Your task to perform on an android device: Go to Reddit.com Image 0: 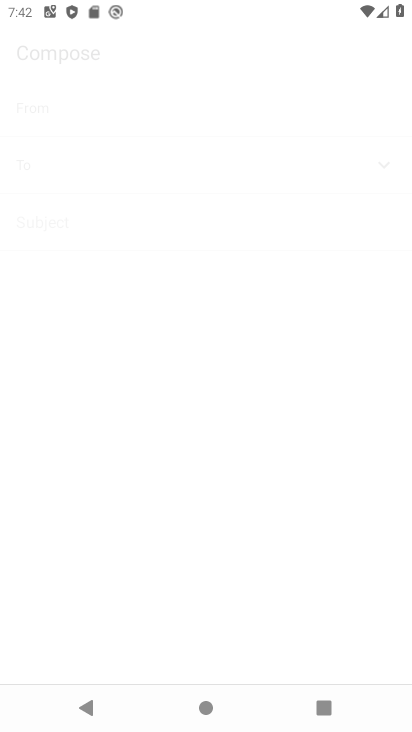
Step 0: drag from (303, 630) to (251, 160)
Your task to perform on an android device: Go to Reddit.com Image 1: 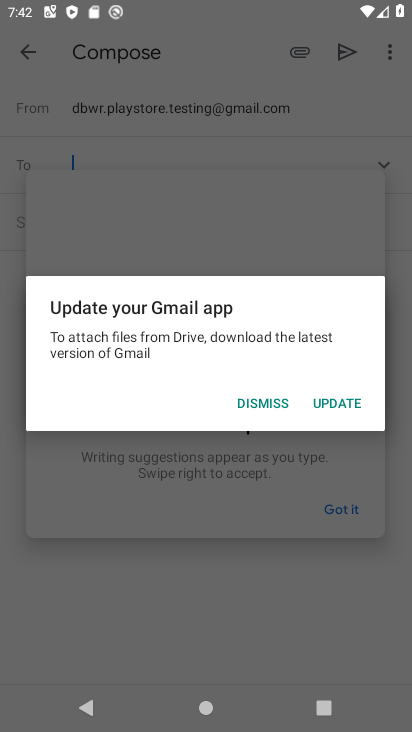
Step 1: press home button
Your task to perform on an android device: Go to Reddit.com Image 2: 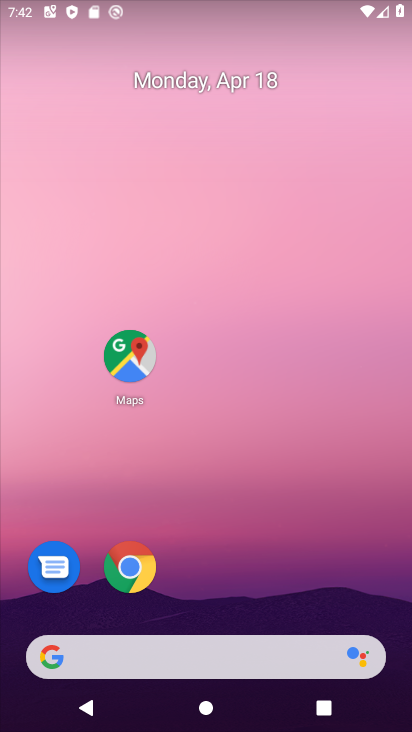
Step 2: drag from (298, 665) to (237, 182)
Your task to perform on an android device: Go to Reddit.com Image 3: 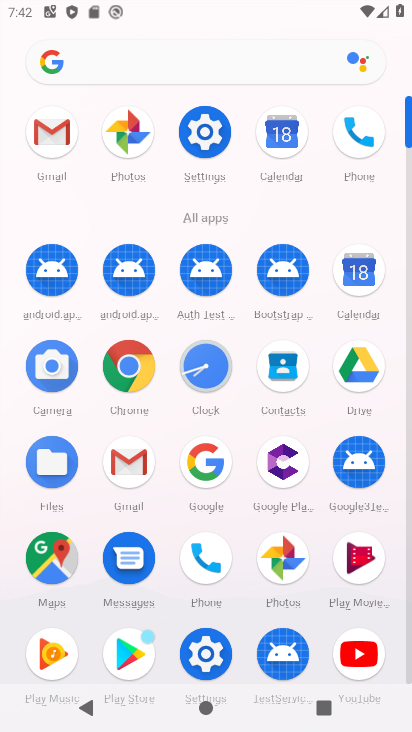
Step 3: click (143, 653)
Your task to perform on an android device: Go to Reddit.com Image 4: 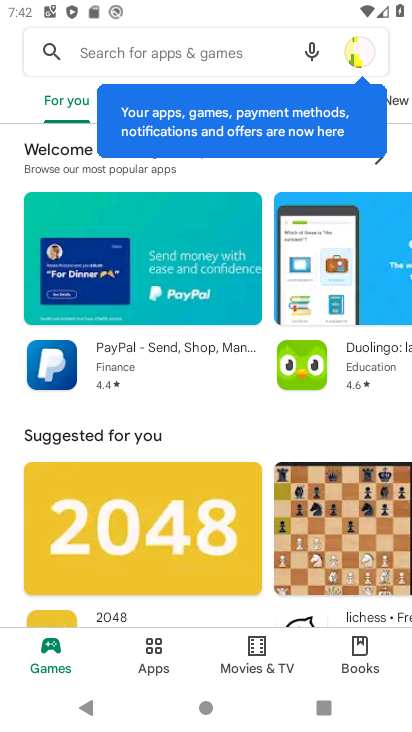
Step 4: press home button
Your task to perform on an android device: Go to Reddit.com Image 5: 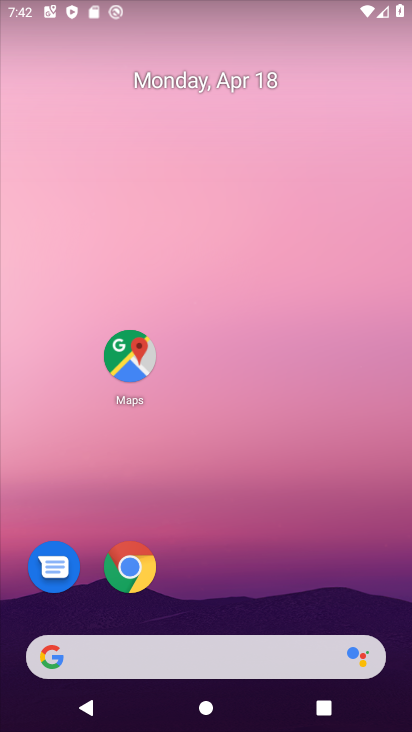
Step 5: click (141, 576)
Your task to perform on an android device: Go to Reddit.com Image 6: 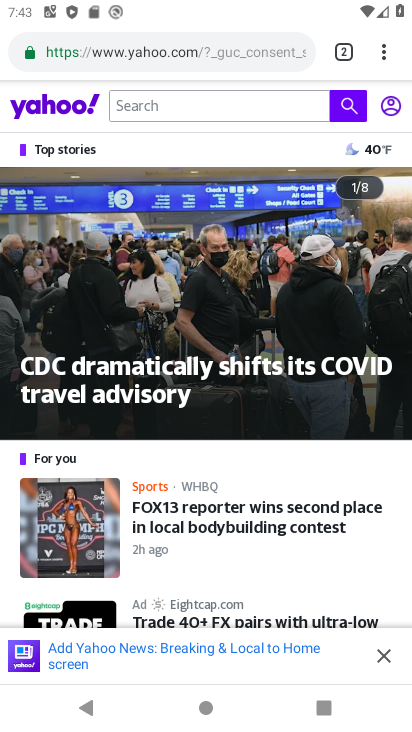
Step 6: click (219, 60)
Your task to perform on an android device: Go to Reddit.com Image 7: 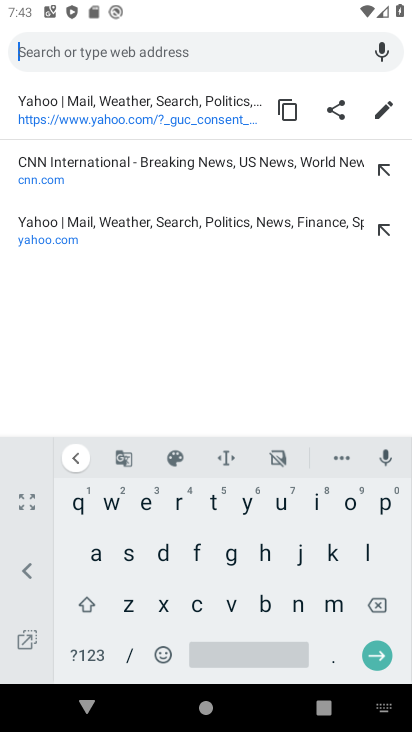
Step 7: click (27, 497)
Your task to perform on an android device: Go to Reddit.com Image 8: 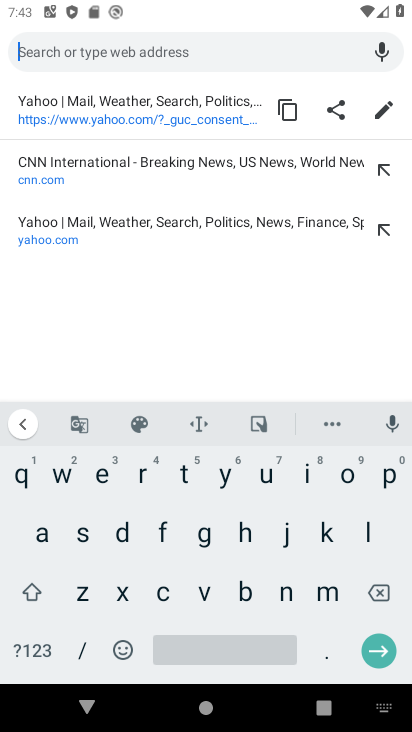
Step 8: click (136, 471)
Your task to perform on an android device: Go to Reddit.com Image 9: 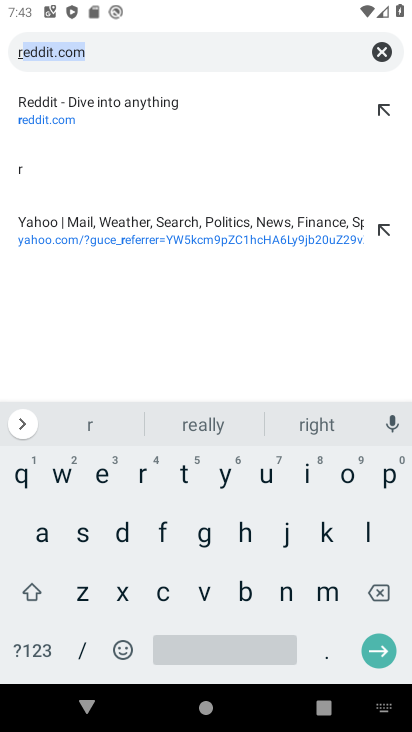
Step 9: click (97, 469)
Your task to perform on an android device: Go to Reddit.com Image 10: 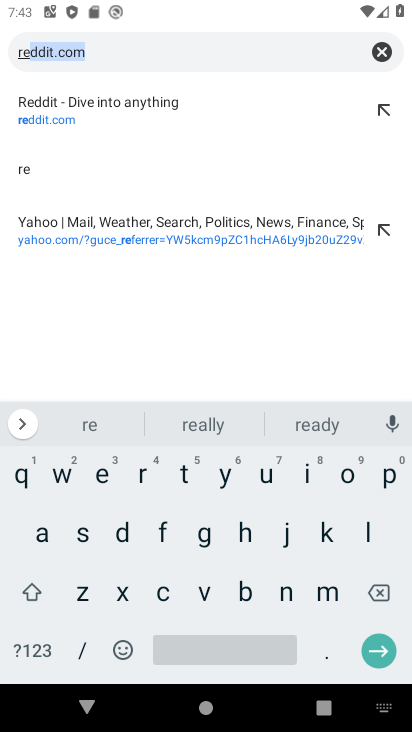
Step 10: click (189, 55)
Your task to perform on an android device: Go to Reddit.com Image 11: 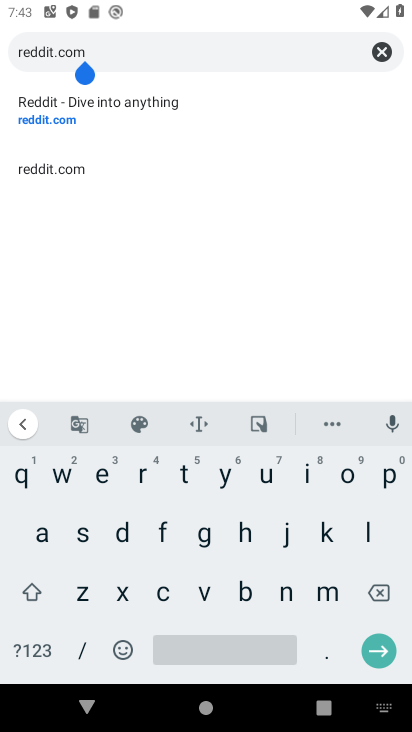
Step 11: click (380, 652)
Your task to perform on an android device: Go to Reddit.com Image 12: 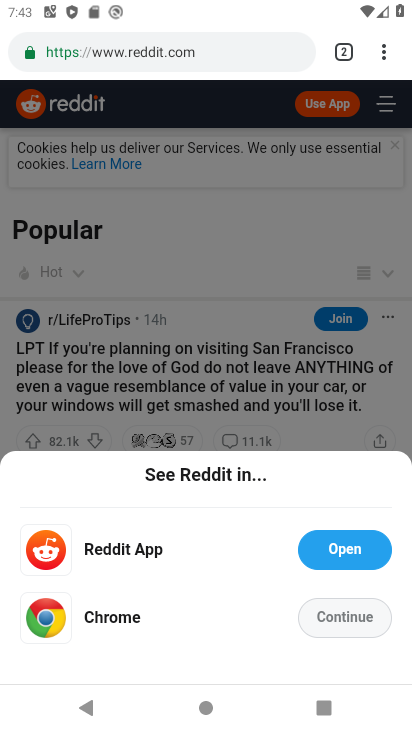
Step 12: click (327, 425)
Your task to perform on an android device: Go to Reddit.com Image 13: 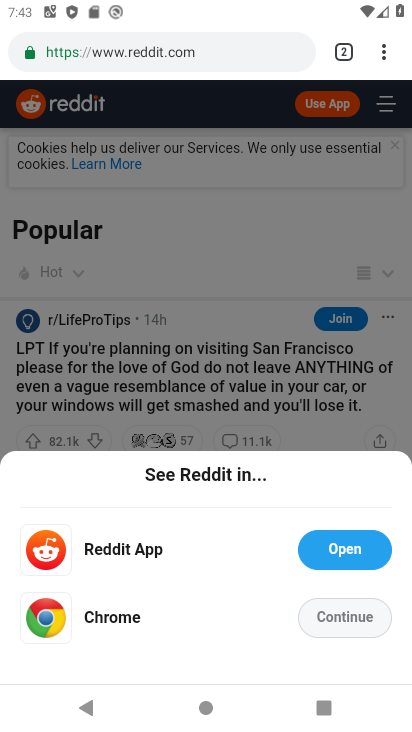
Step 13: click (327, 425)
Your task to perform on an android device: Go to Reddit.com Image 14: 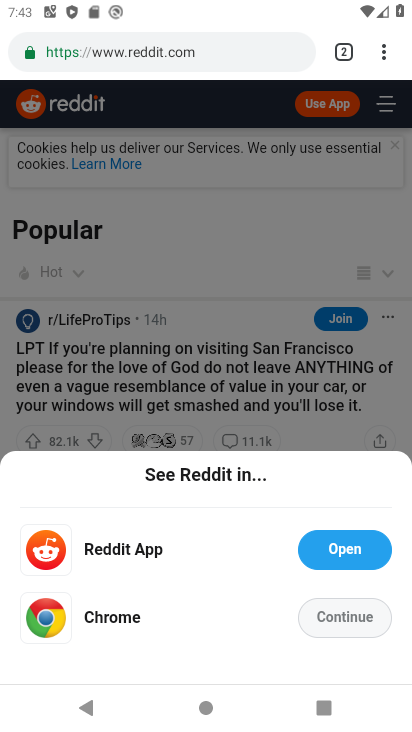
Step 14: click (79, 714)
Your task to perform on an android device: Go to Reddit.com Image 15: 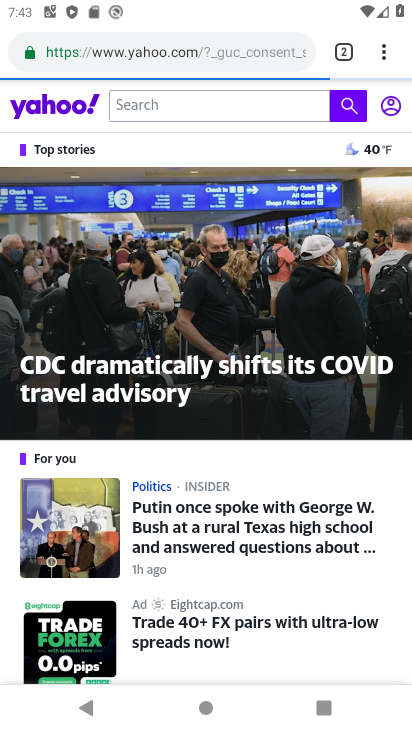
Step 15: click (174, 57)
Your task to perform on an android device: Go to Reddit.com Image 16: 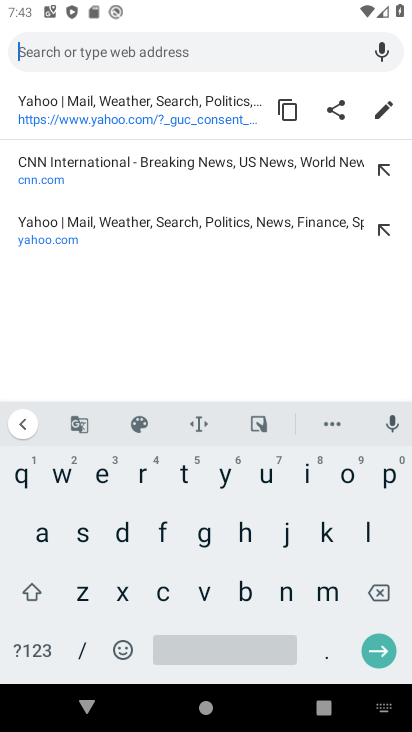
Step 16: click (136, 476)
Your task to perform on an android device: Go to Reddit.com Image 17: 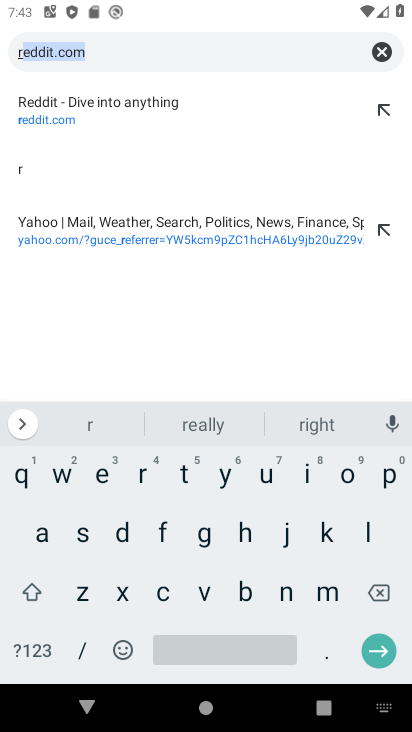
Step 17: click (119, 58)
Your task to perform on an android device: Go to Reddit.com Image 18: 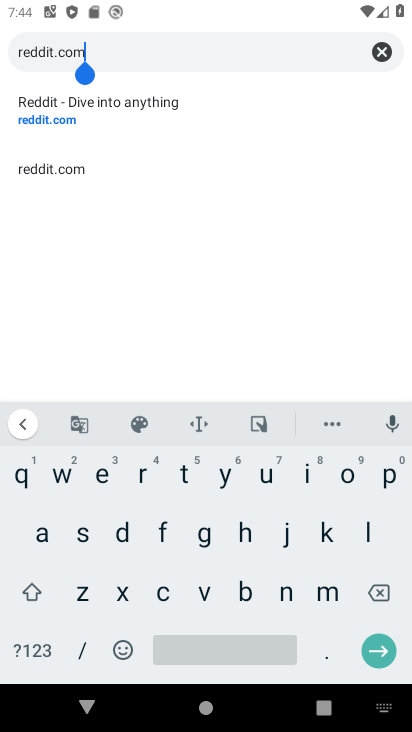
Step 18: click (373, 652)
Your task to perform on an android device: Go to Reddit.com Image 19: 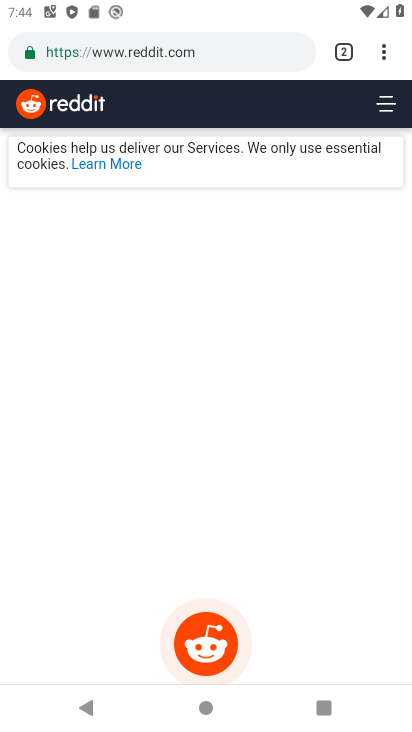
Step 19: task complete